Your task to perform on an android device: open a bookmark in the chrome app Image 0: 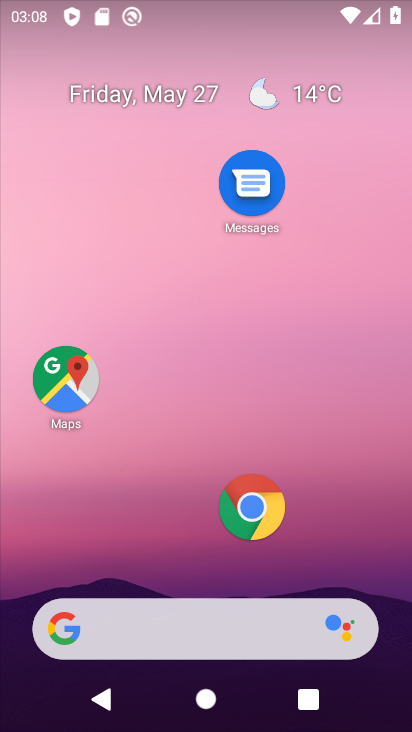
Step 0: drag from (216, 553) to (271, 141)
Your task to perform on an android device: open a bookmark in the chrome app Image 1: 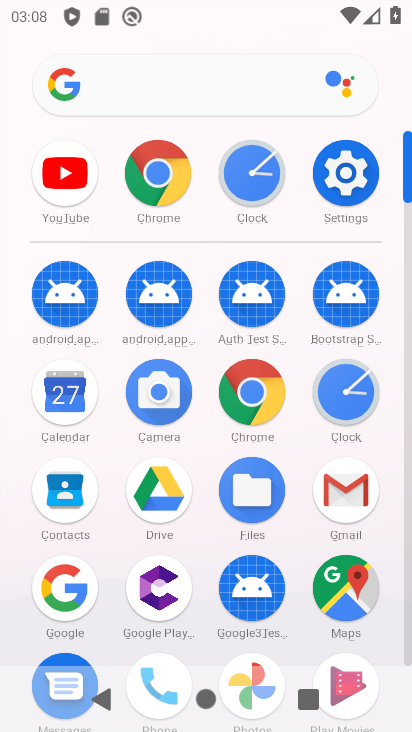
Step 1: click (256, 390)
Your task to perform on an android device: open a bookmark in the chrome app Image 2: 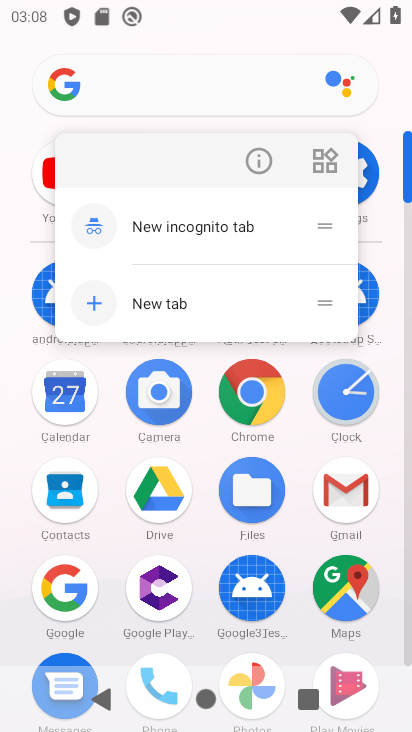
Step 2: click (271, 159)
Your task to perform on an android device: open a bookmark in the chrome app Image 3: 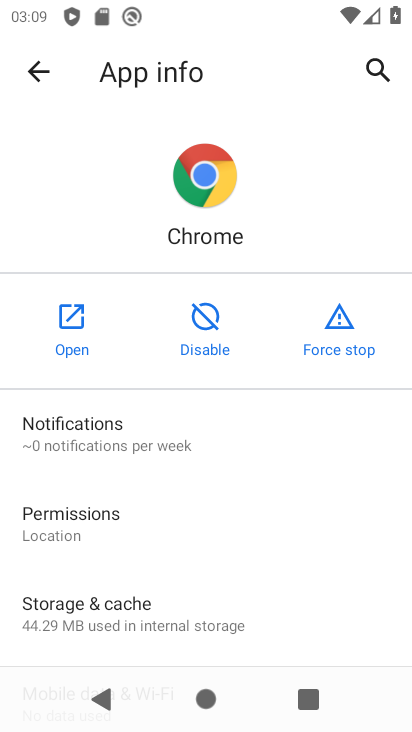
Step 3: click (78, 325)
Your task to perform on an android device: open a bookmark in the chrome app Image 4: 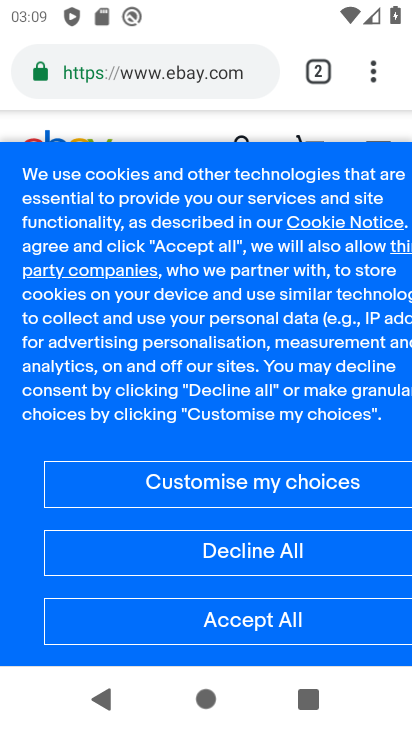
Step 4: drag from (378, 66) to (122, 492)
Your task to perform on an android device: open a bookmark in the chrome app Image 5: 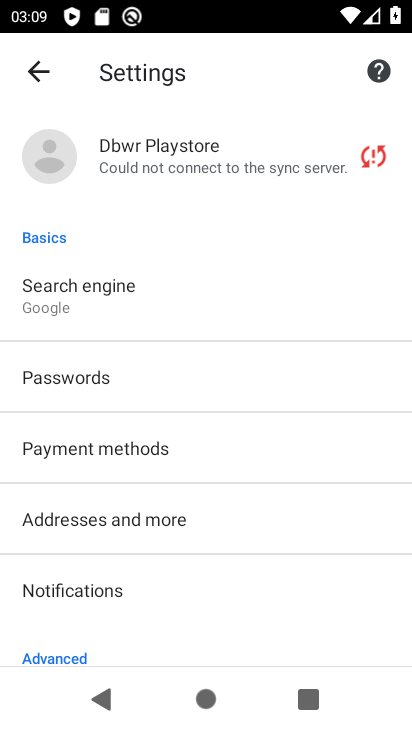
Step 5: drag from (215, 619) to (273, 166)
Your task to perform on an android device: open a bookmark in the chrome app Image 6: 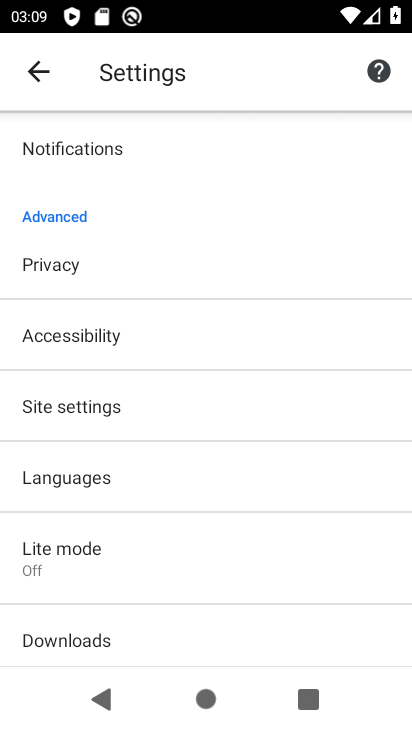
Step 6: drag from (93, 575) to (184, 299)
Your task to perform on an android device: open a bookmark in the chrome app Image 7: 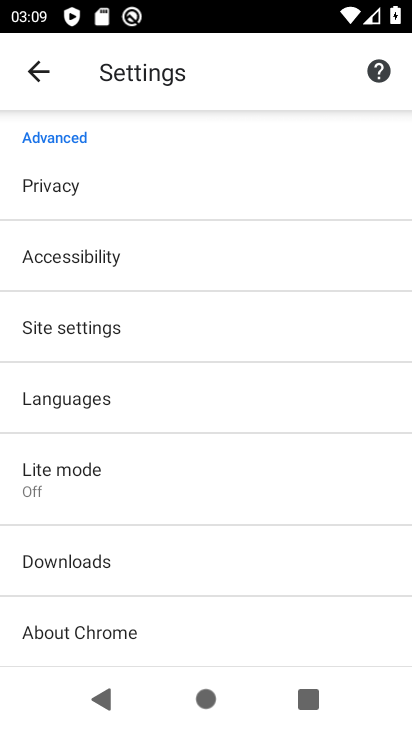
Step 7: click (112, 320)
Your task to perform on an android device: open a bookmark in the chrome app Image 8: 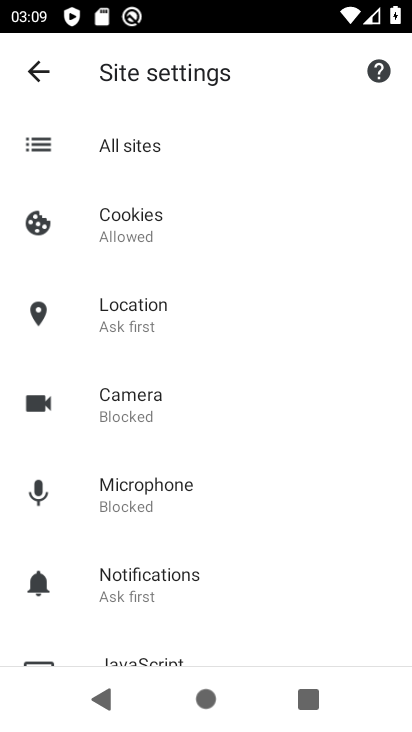
Step 8: click (13, 67)
Your task to perform on an android device: open a bookmark in the chrome app Image 9: 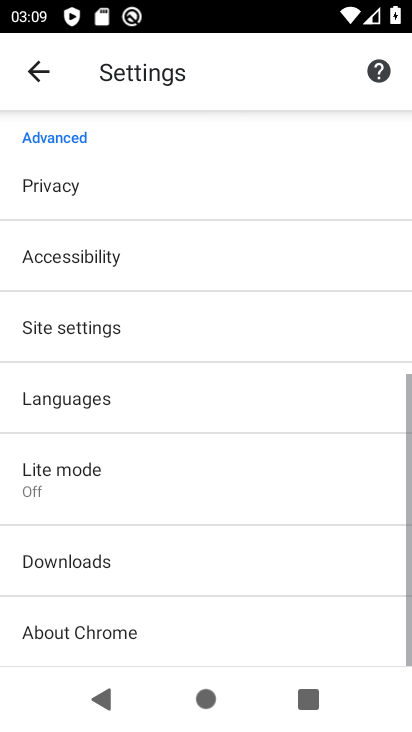
Step 9: click (24, 70)
Your task to perform on an android device: open a bookmark in the chrome app Image 10: 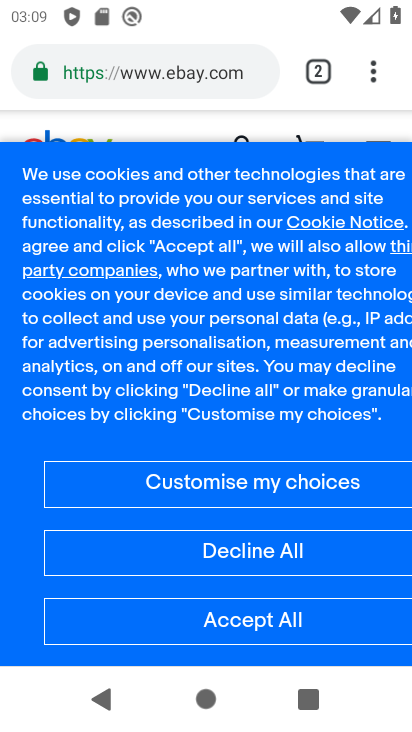
Step 10: task complete